Your task to perform on an android device: change the clock style Image 0: 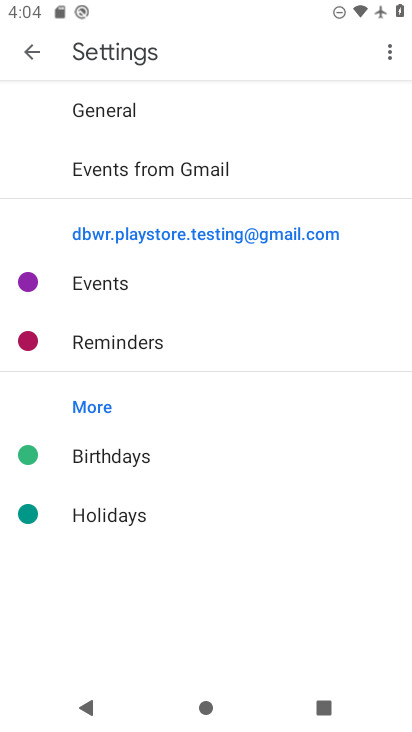
Step 0: press home button
Your task to perform on an android device: change the clock style Image 1: 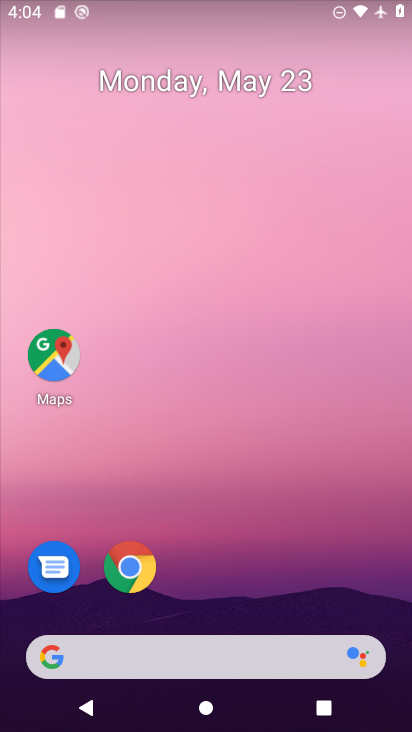
Step 1: drag from (391, 656) to (213, 99)
Your task to perform on an android device: change the clock style Image 2: 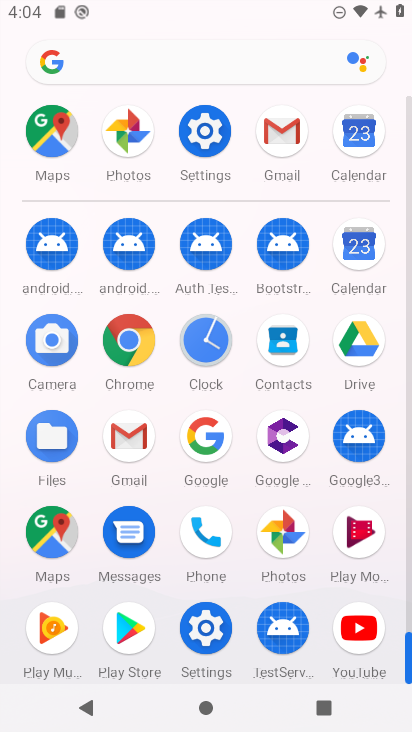
Step 2: click (203, 337)
Your task to perform on an android device: change the clock style Image 3: 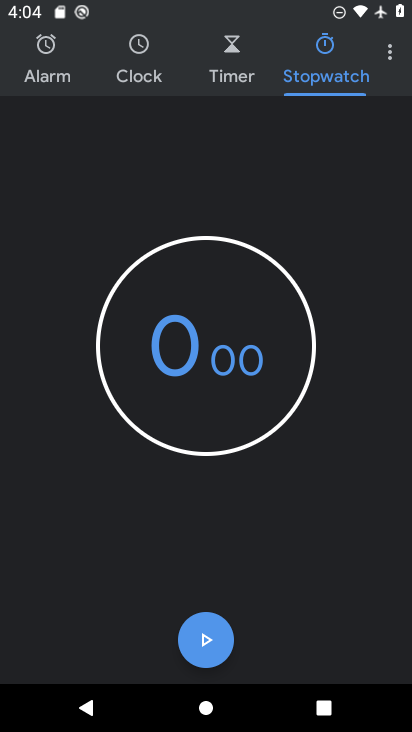
Step 3: click (391, 58)
Your task to perform on an android device: change the clock style Image 4: 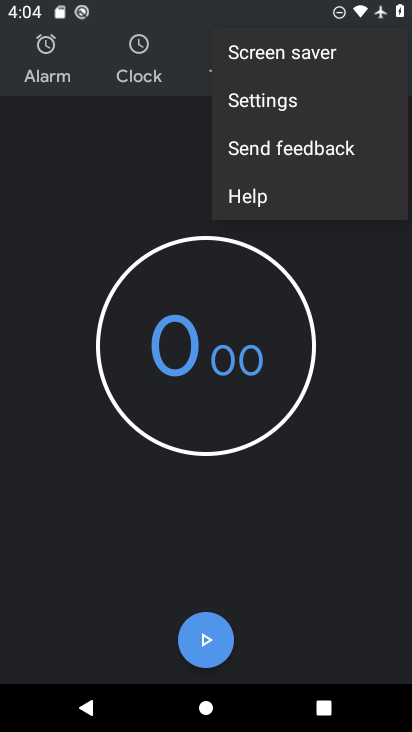
Step 4: click (256, 96)
Your task to perform on an android device: change the clock style Image 5: 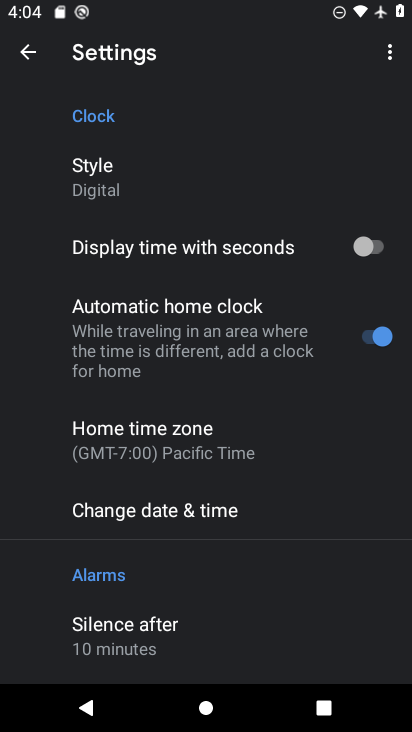
Step 5: click (102, 193)
Your task to perform on an android device: change the clock style Image 6: 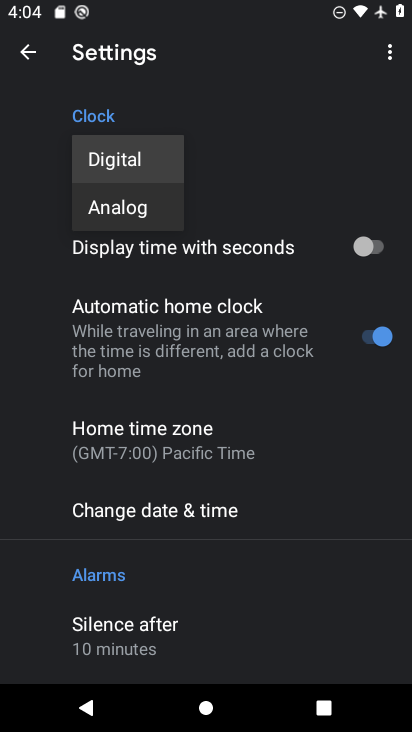
Step 6: click (114, 204)
Your task to perform on an android device: change the clock style Image 7: 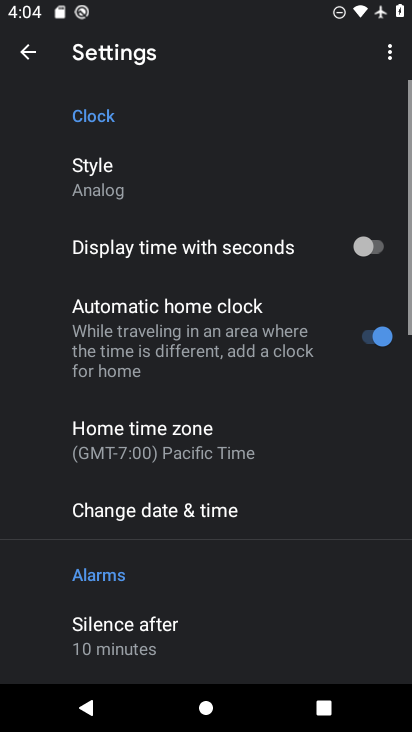
Step 7: task complete